Your task to perform on an android device: What's on my calendar tomorrow? Image 0: 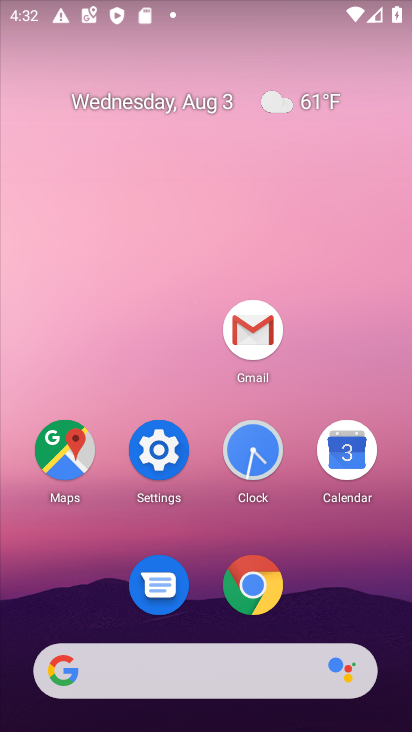
Step 0: click (337, 449)
Your task to perform on an android device: What's on my calendar tomorrow? Image 1: 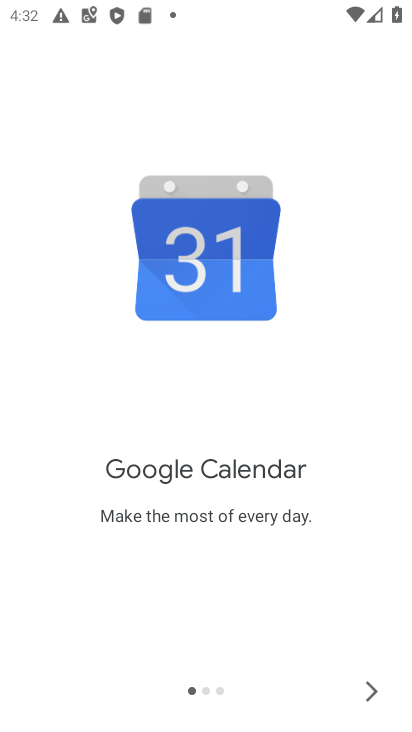
Step 1: click (383, 689)
Your task to perform on an android device: What's on my calendar tomorrow? Image 2: 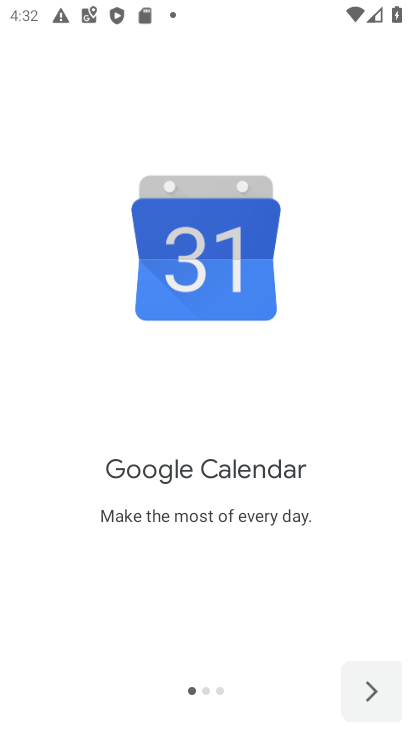
Step 2: click (377, 685)
Your task to perform on an android device: What's on my calendar tomorrow? Image 3: 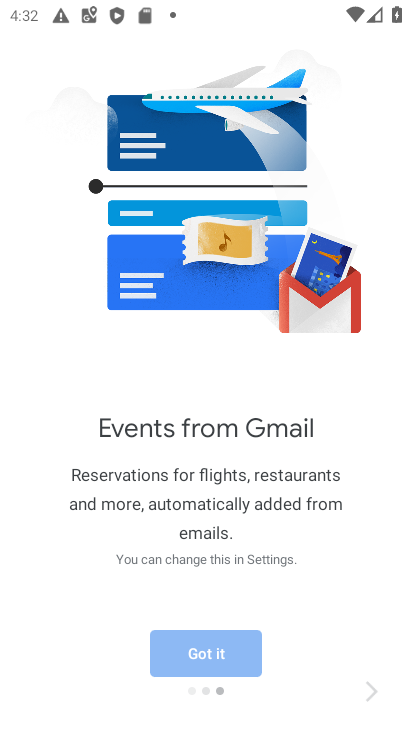
Step 3: click (377, 685)
Your task to perform on an android device: What's on my calendar tomorrow? Image 4: 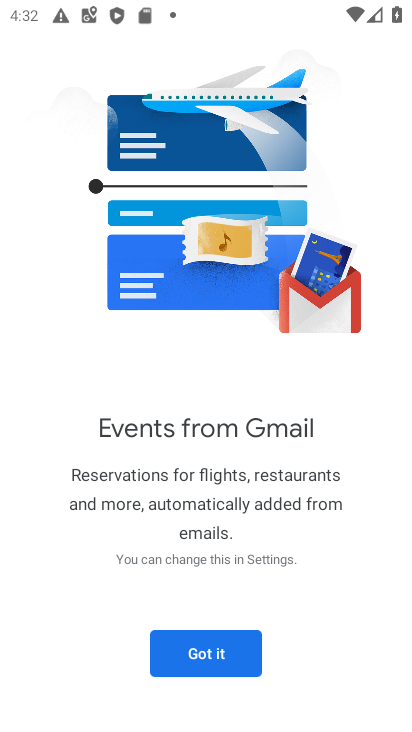
Step 4: click (228, 646)
Your task to perform on an android device: What's on my calendar tomorrow? Image 5: 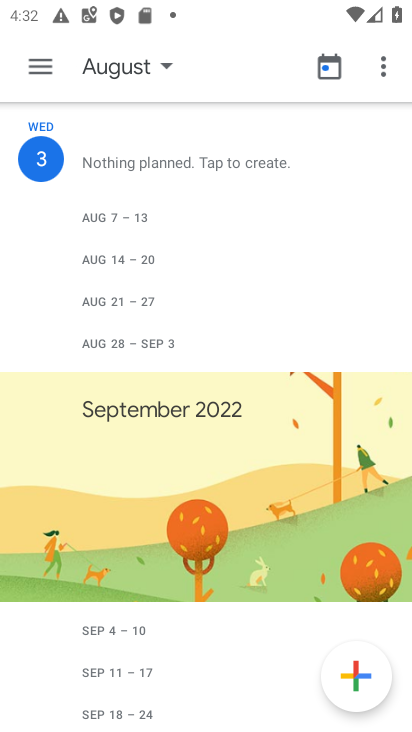
Step 5: click (160, 64)
Your task to perform on an android device: What's on my calendar tomorrow? Image 6: 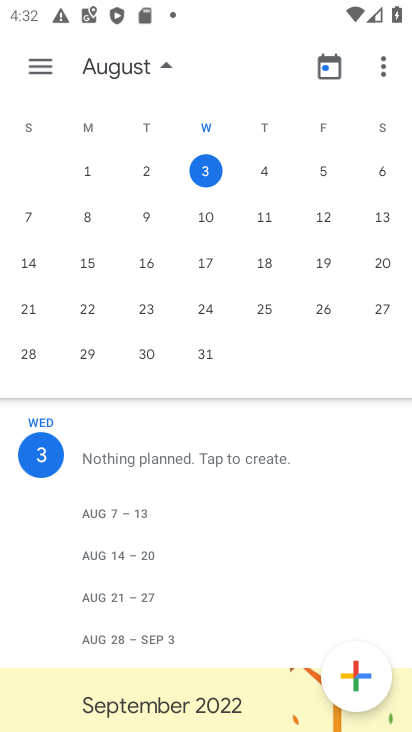
Step 6: click (258, 171)
Your task to perform on an android device: What's on my calendar tomorrow? Image 7: 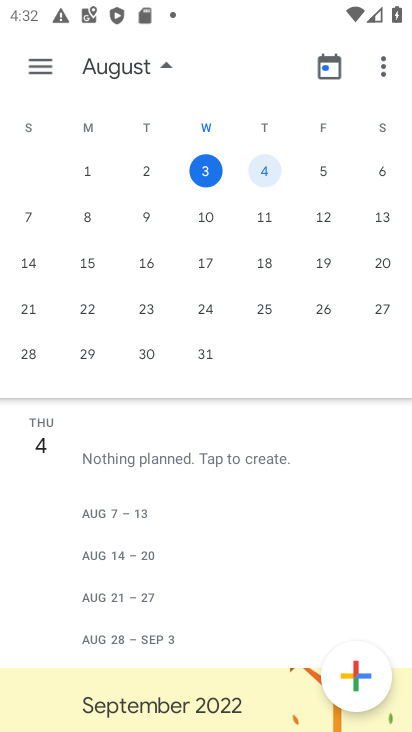
Step 7: task complete